Your task to perform on an android device: When is my next meeting? Image 0: 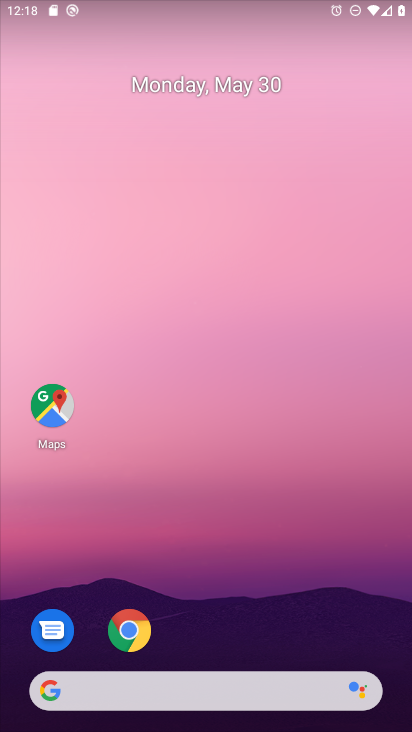
Step 0: press home button
Your task to perform on an android device: When is my next meeting? Image 1: 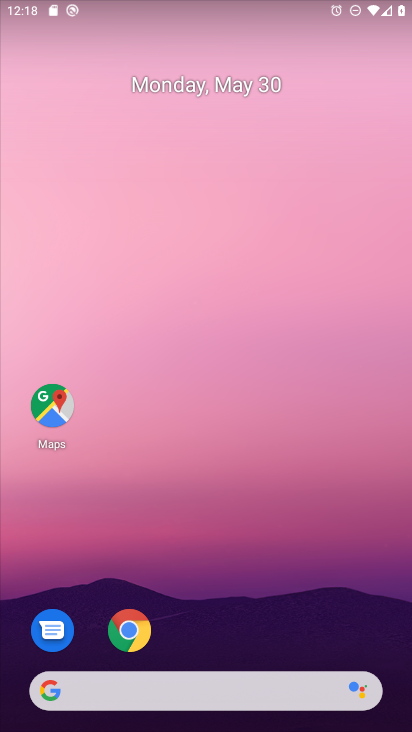
Step 1: drag from (173, 697) to (325, 66)
Your task to perform on an android device: When is my next meeting? Image 2: 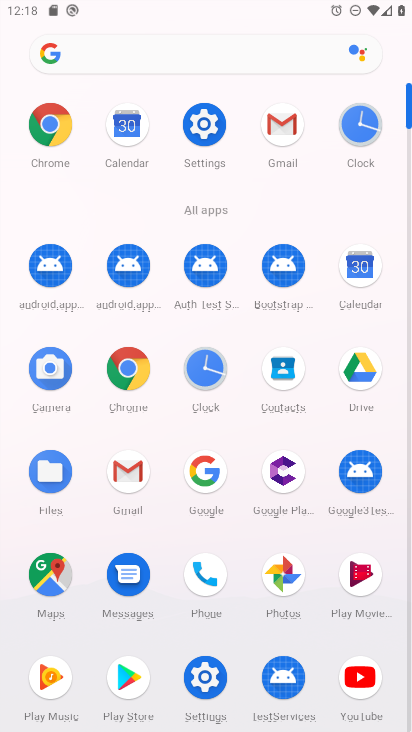
Step 2: click (365, 270)
Your task to perform on an android device: When is my next meeting? Image 3: 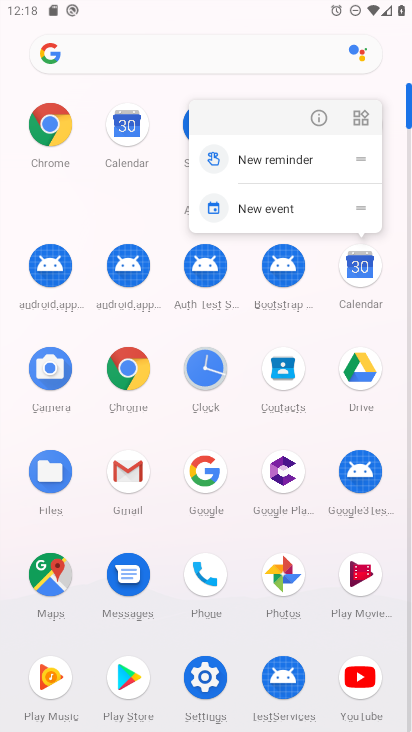
Step 3: click (356, 281)
Your task to perform on an android device: When is my next meeting? Image 4: 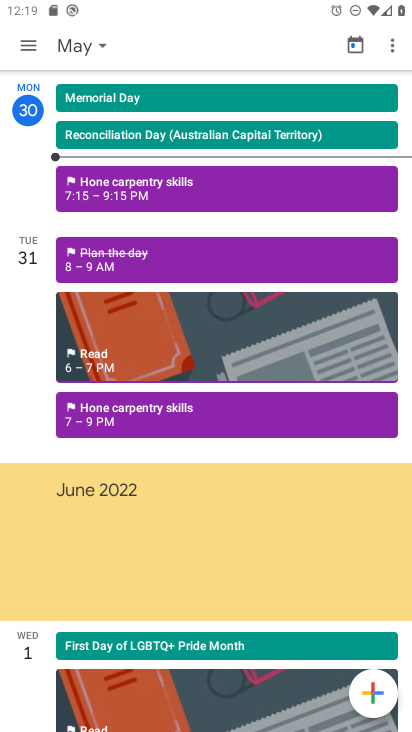
Step 4: click (216, 184)
Your task to perform on an android device: When is my next meeting? Image 5: 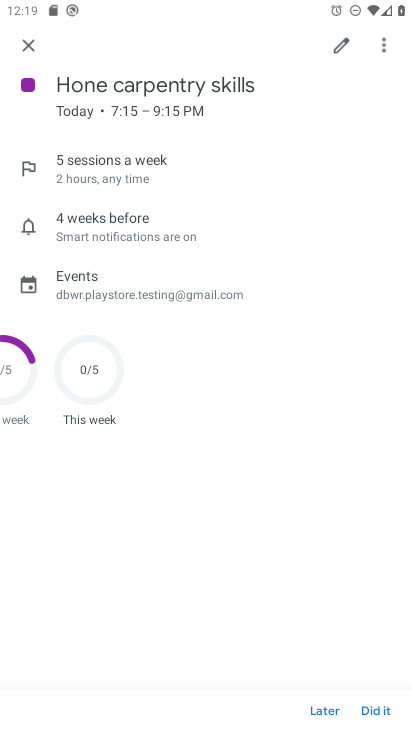
Step 5: task complete